Your task to perform on an android device: Go to Amazon Image 0: 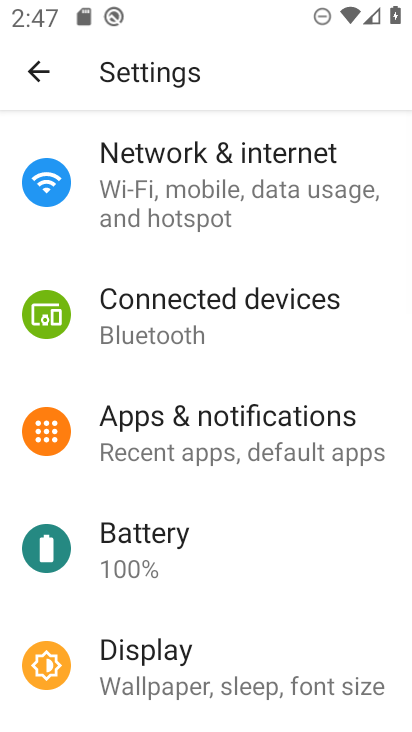
Step 0: press back button
Your task to perform on an android device: Go to Amazon Image 1: 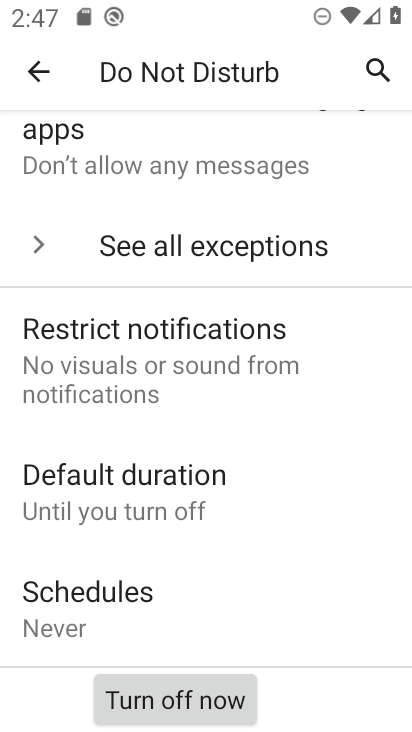
Step 1: press home button
Your task to perform on an android device: Go to Amazon Image 2: 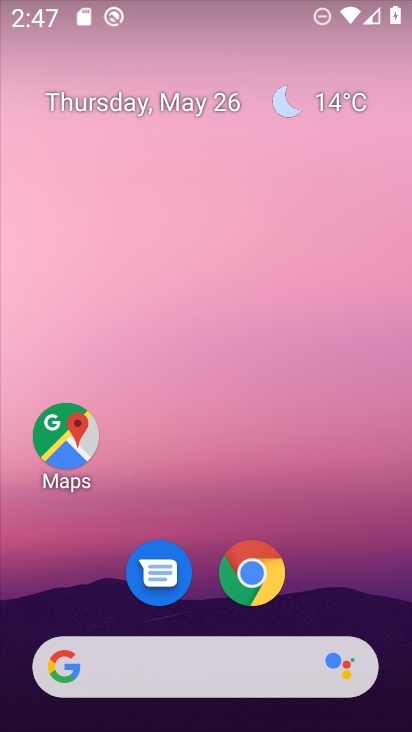
Step 2: click (259, 567)
Your task to perform on an android device: Go to Amazon Image 3: 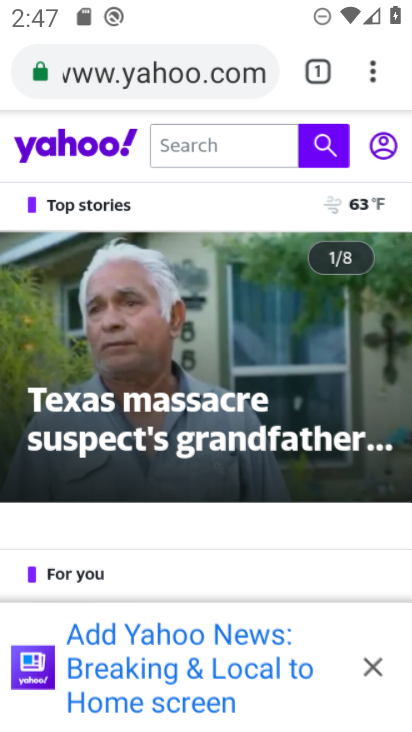
Step 3: click (183, 67)
Your task to perform on an android device: Go to Amazon Image 4: 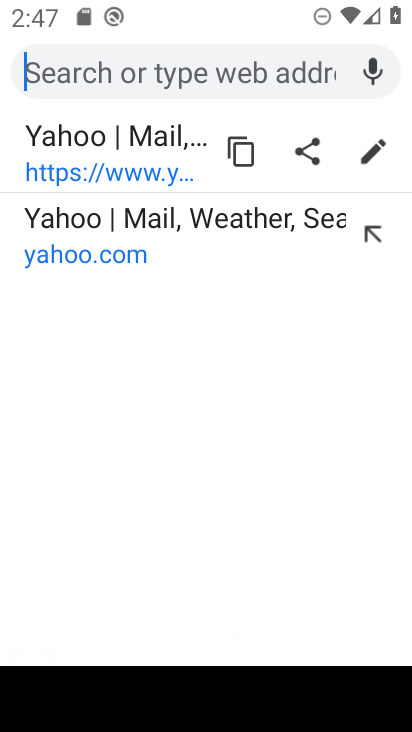
Step 4: type " Amazon"
Your task to perform on an android device: Go to Amazon Image 5: 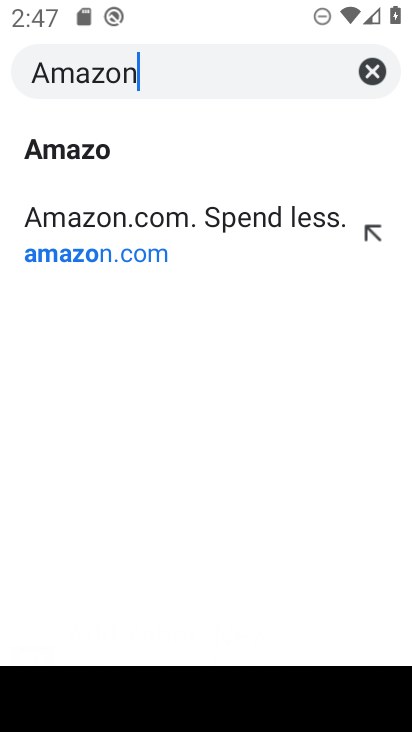
Step 5: type ""
Your task to perform on an android device: Go to Amazon Image 6: 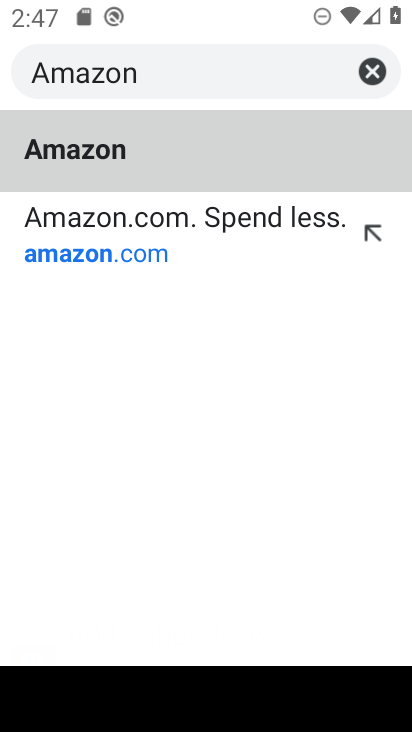
Step 6: click (135, 225)
Your task to perform on an android device: Go to Amazon Image 7: 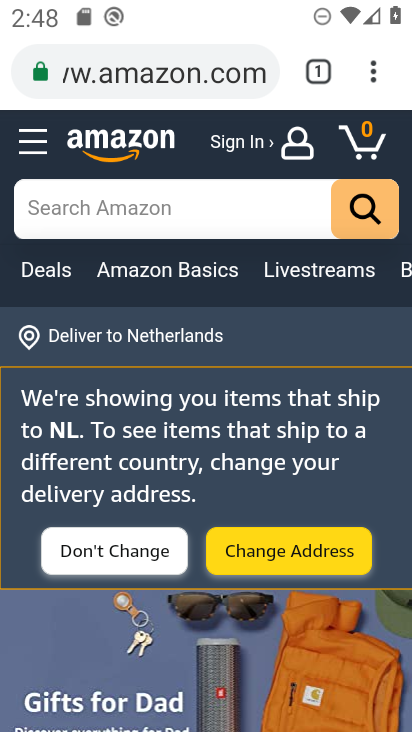
Step 7: task complete